Your task to perform on an android device: What's on my calendar tomorrow? Image 0: 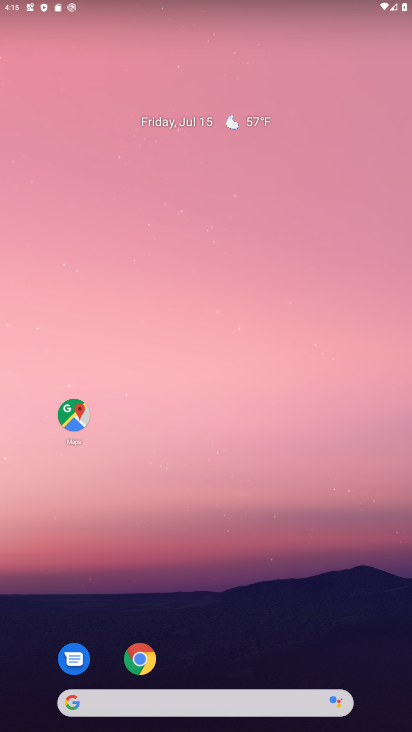
Step 0: drag from (261, 629) to (96, 42)
Your task to perform on an android device: What's on my calendar tomorrow? Image 1: 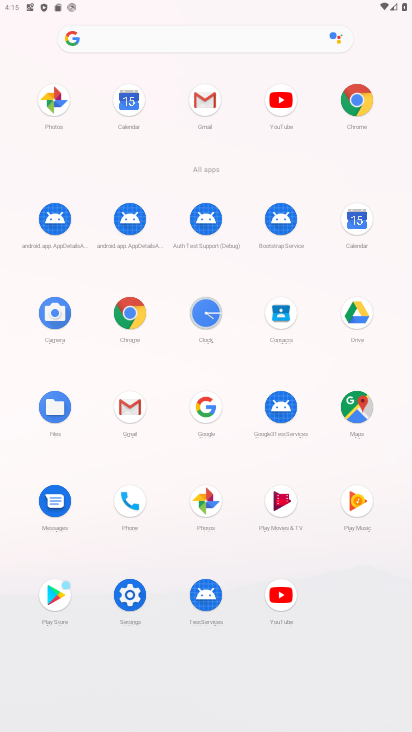
Step 1: click (368, 227)
Your task to perform on an android device: What's on my calendar tomorrow? Image 2: 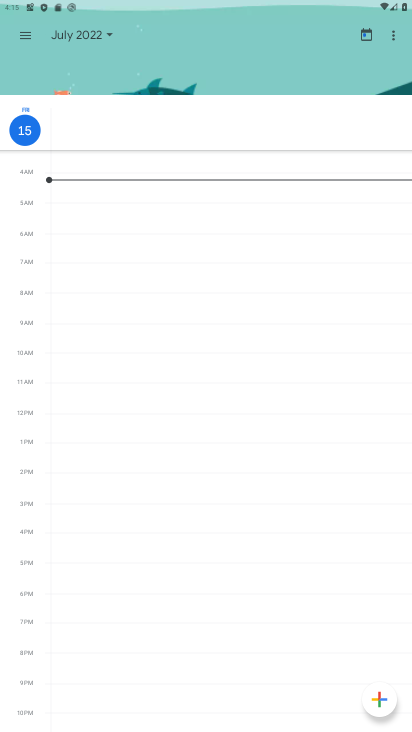
Step 2: task complete